Your task to perform on an android device: Do I have any events this weekend? Image 0: 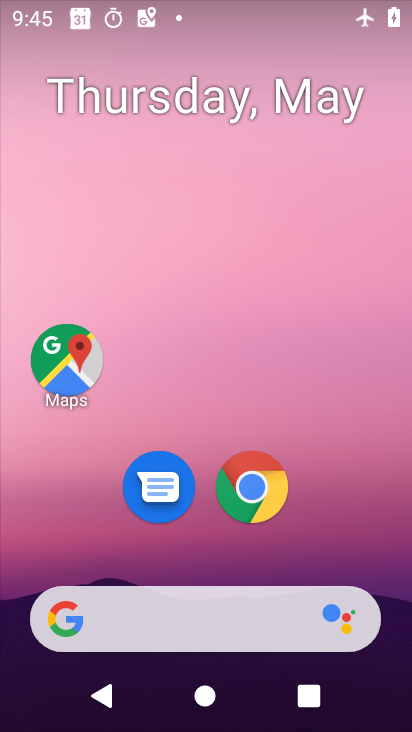
Step 0: press home button
Your task to perform on an android device: Do I have any events this weekend? Image 1: 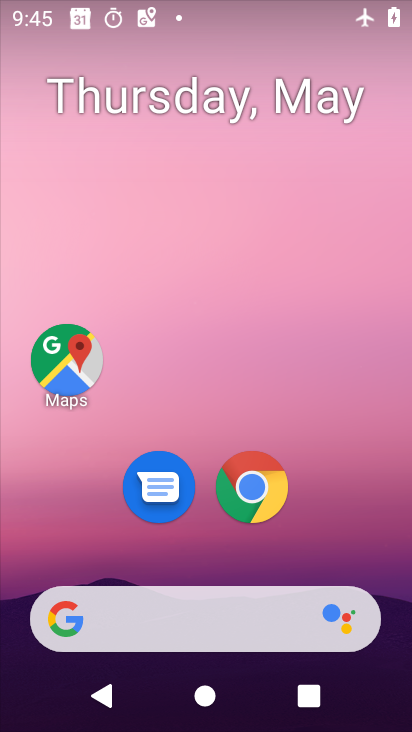
Step 1: drag from (296, 622) to (290, 318)
Your task to perform on an android device: Do I have any events this weekend? Image 2: 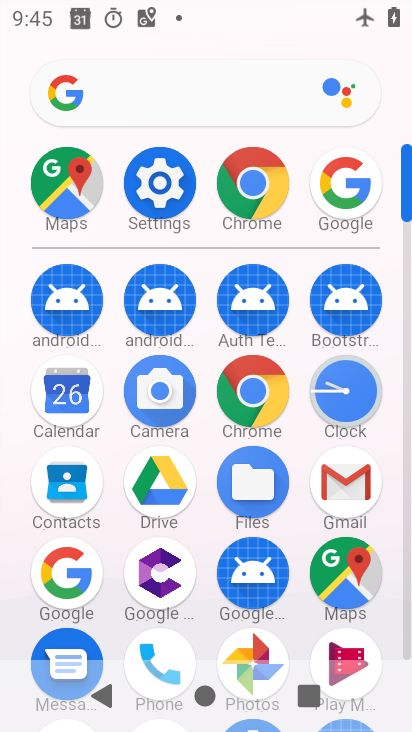
Step 2: click (73, 416)
Your task to perform on an android device: Do I have any events this weekend? Image 3: 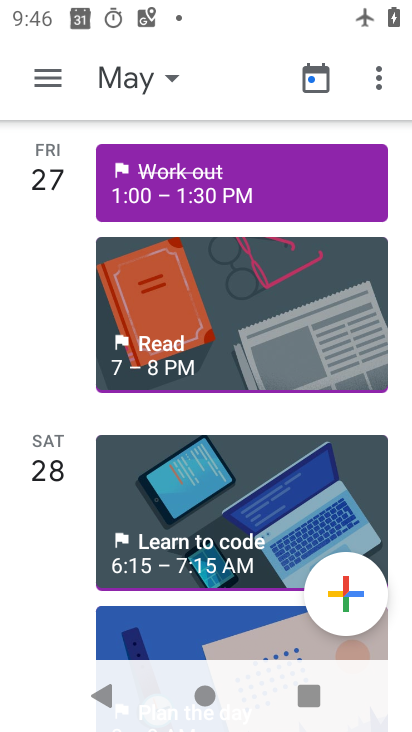
Step 3: click (164, 86)
Your task to perform on an android device: Do I have any events this weekend? Image 4: 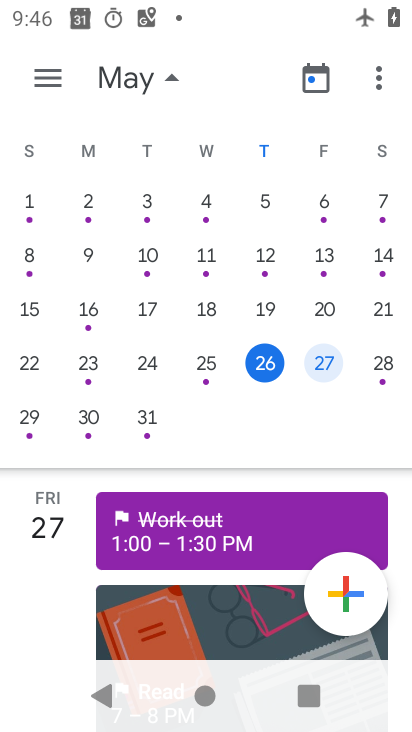
Step 4: task complete